Your task to perform on an android device: turn off translation in the chrome app Image 0: 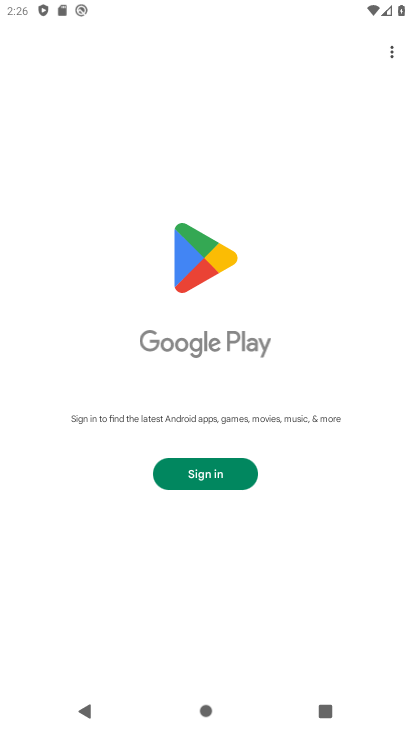
Step 0: press home button
Your task to perform on an android device: turn off translation in the chrome app Image 1: 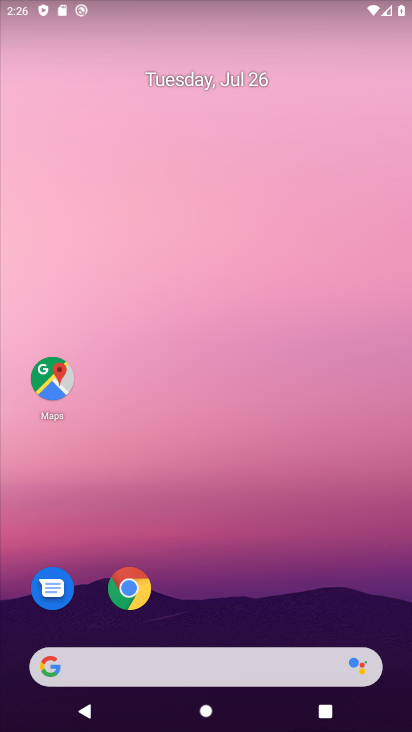
Step 1: drag from (298, 609) to (218, 200)
Your task to perform on an android device: turn off translation in the chrome app Image 2: 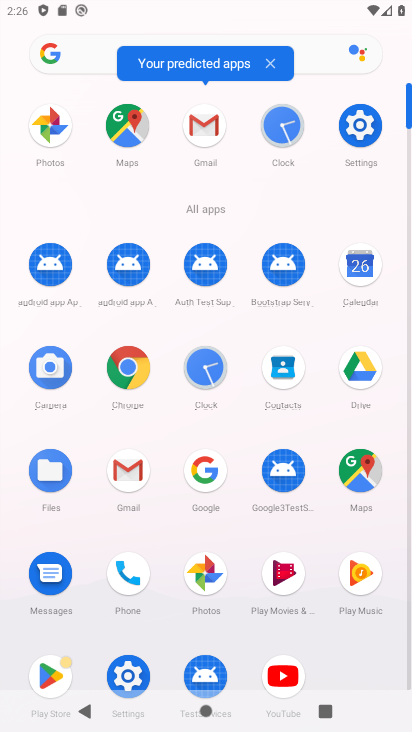
Step 2: click (130, 372)
Your task to perform on an android device: turn off translation in the chrome app Image 3: 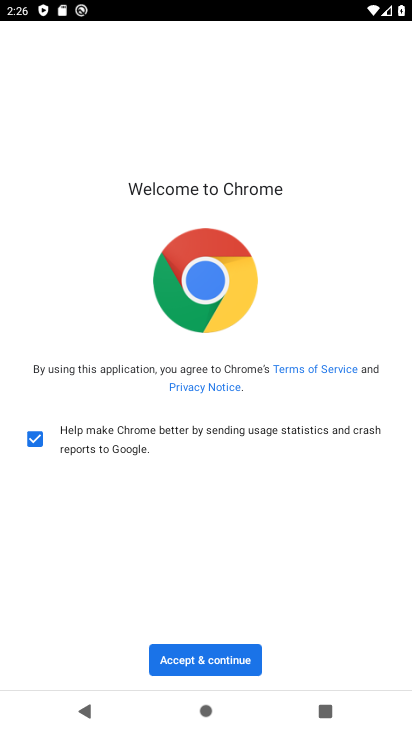
Step 3: click (238, 649)
Your task to perform on an android device: turn off translation in the chrome app Image 4: 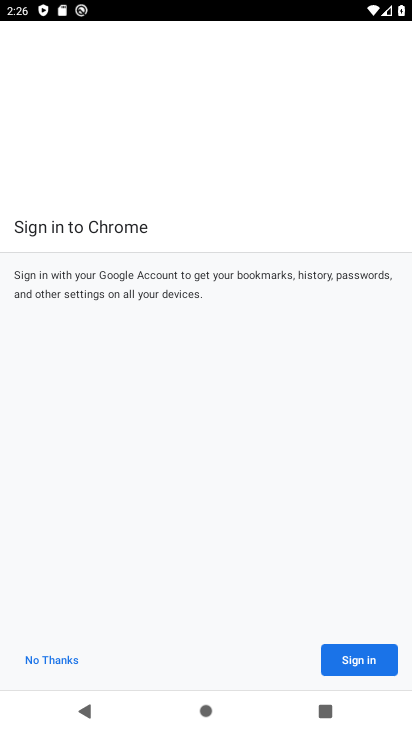
Step 4: click (47, 663)
Your task to perform on an android device: turn off translation in the chrome app Image 5: 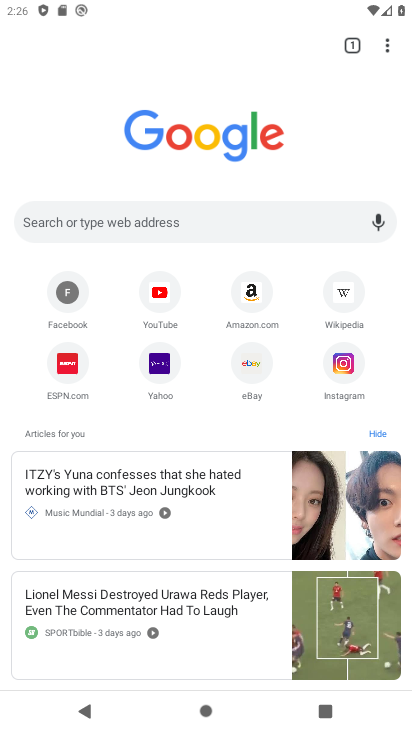
Step 5: click (381, 42)
Your task to perform on an android device: turn off translation in the chrome app Image 6: 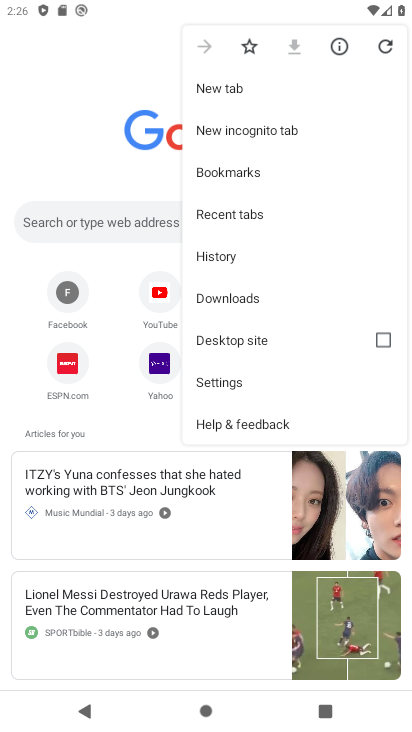
Step 6: click (232, 384)
Your task to perform on an android device: turn off translation in the chrome app Image 7: 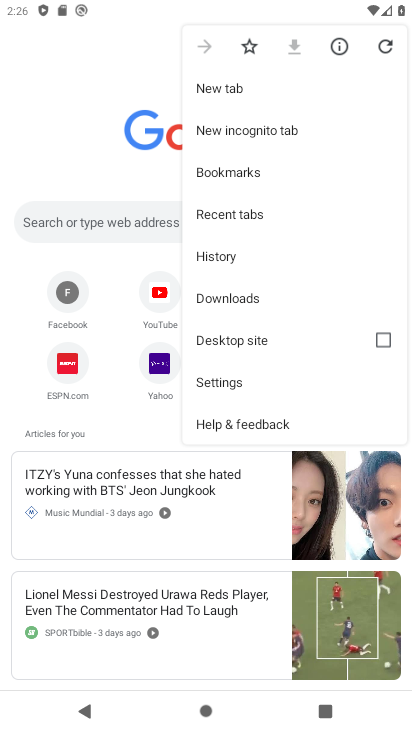
Step 7: click (232, 384)
Your task to perform on an android device: turn off translation in the chrome app Image 8: 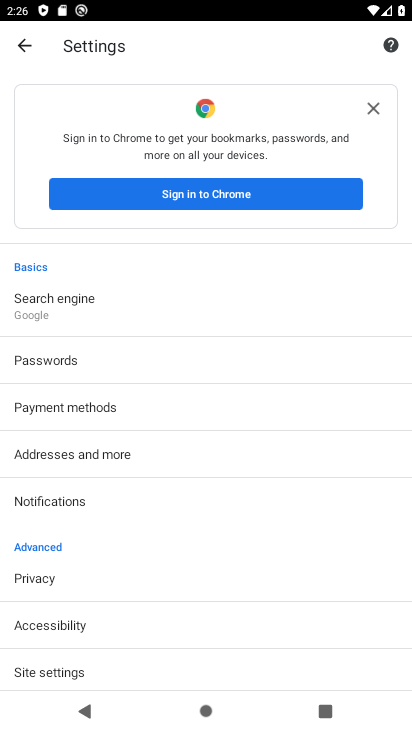
Step 8: drag from (201, 624) to (193, 186)
Your task to perform on an android device: turn off translation in the chrome app Image 9: 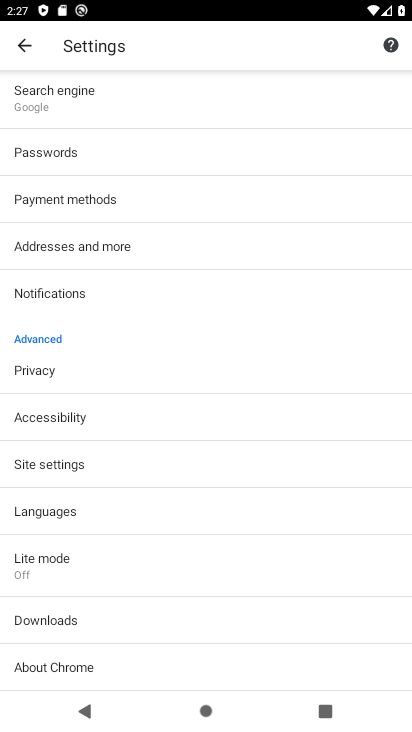
Step 9: click (151, 520)
Your task to perform on an android device: turn off translation in the chrome app Image 10: 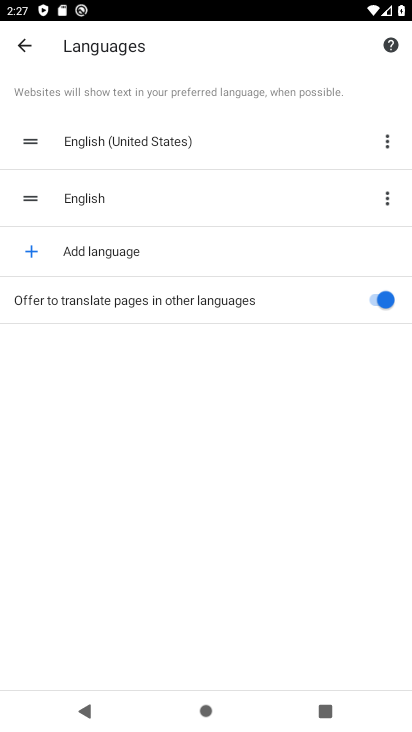
Step 10: click (383, 312)
Your task to perform on an android device: turn off translation in the chrome app Image 11: 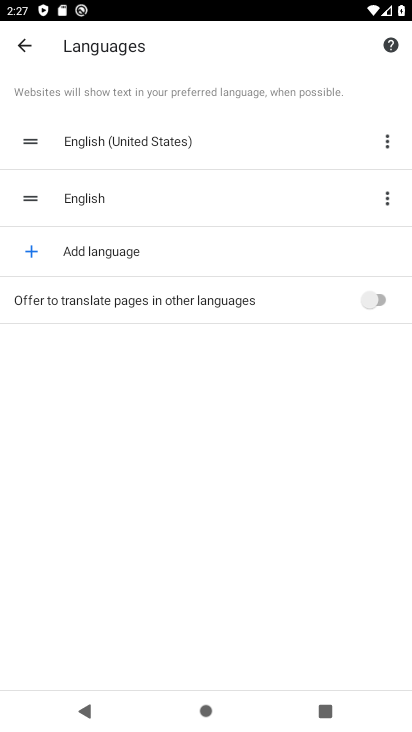
Step 11: task complete